Your task to perform on an android device: Search for "rayovac triple a" on amazon.com, select the first entry, add it to the cart, then select checkout. Image 0: 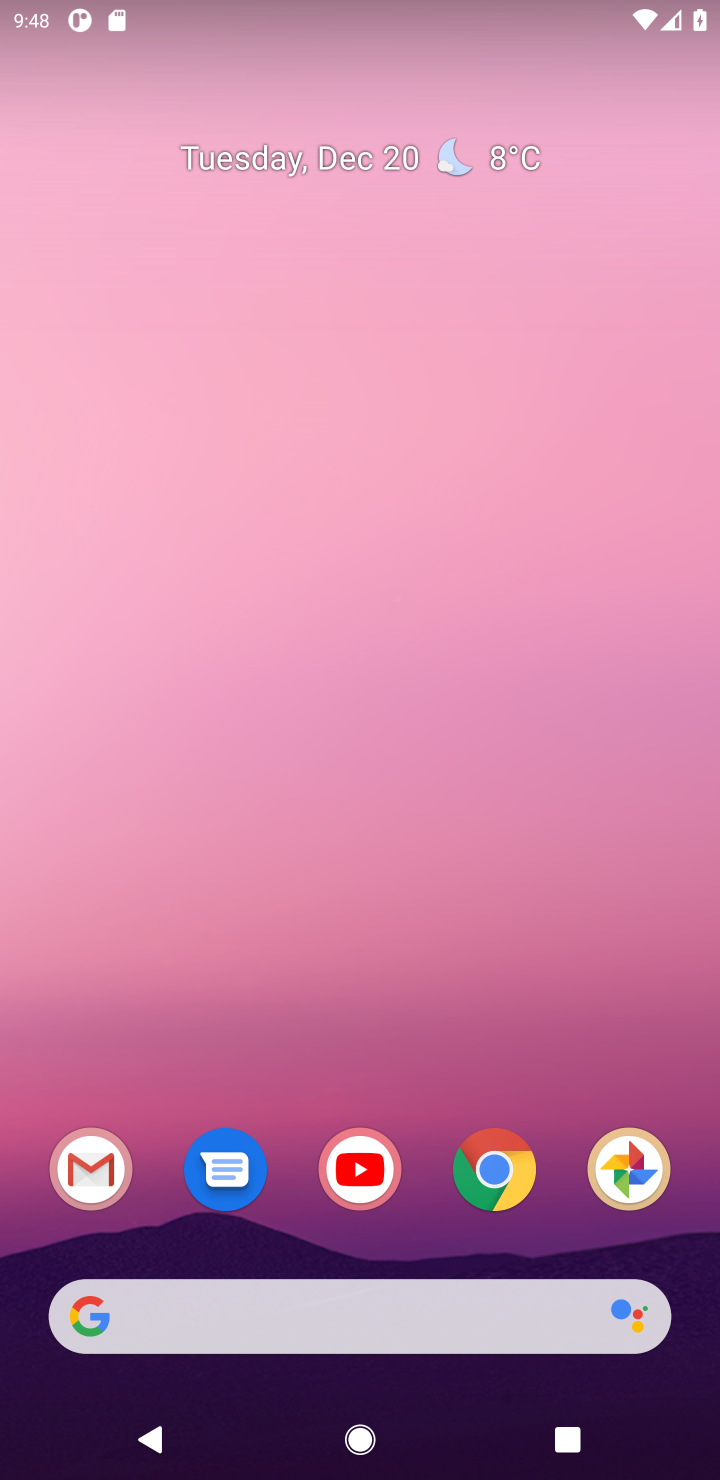
Step 0: click (486, 1208)
Your task to perform on an android device: Search for "rayovac triple a" on amazon.com, select the first entry, add it to the cart, then select checkout. Image 1: 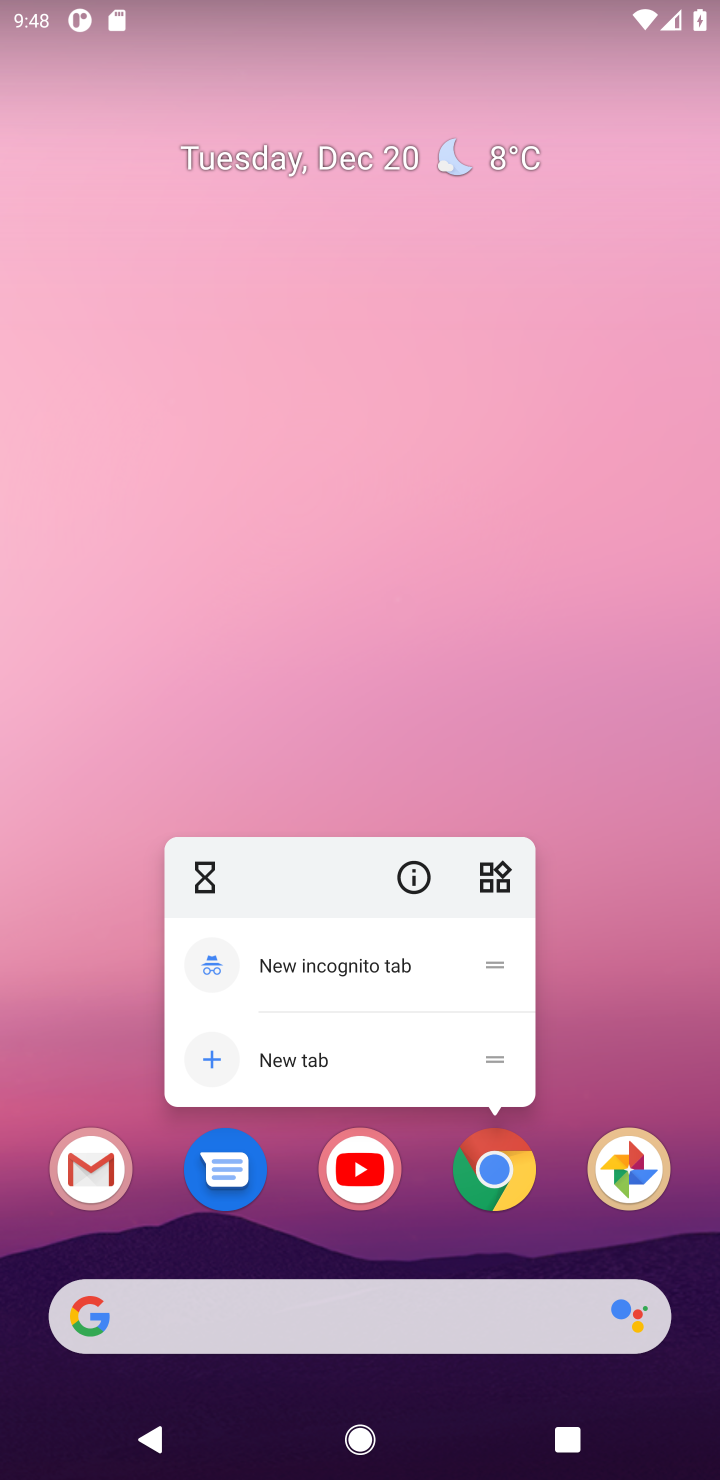
Step 1: click (488, 1157)
Your task to perform on an android device: Search for "rayovac triple a" on amazon.com, select the first entry, add it to the cart, then select checkout. Image 2: 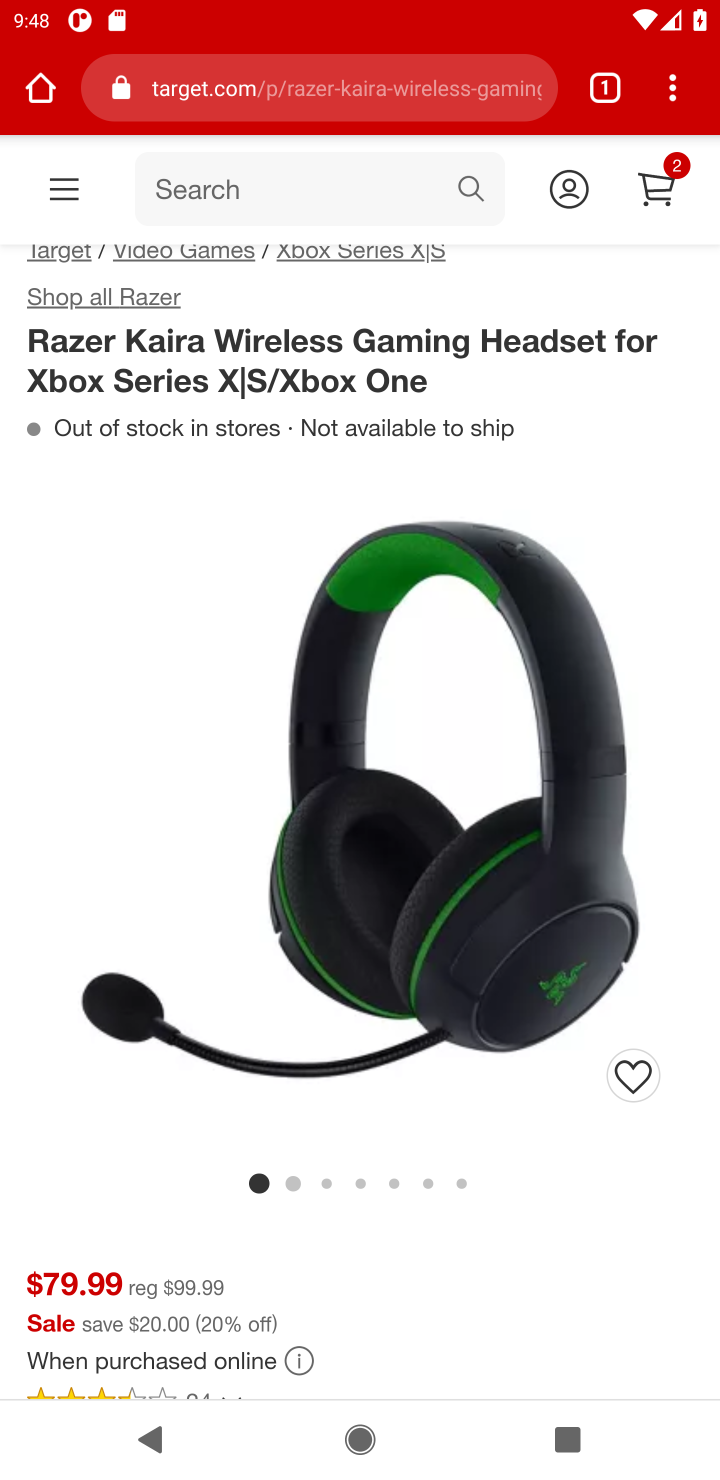
Step 2: click (237, 92)
Your task to perform on an android device: Search for "rayovac triple a" on amazon.com, select the first entry, add it to the cart, then select checkout. Image 3: 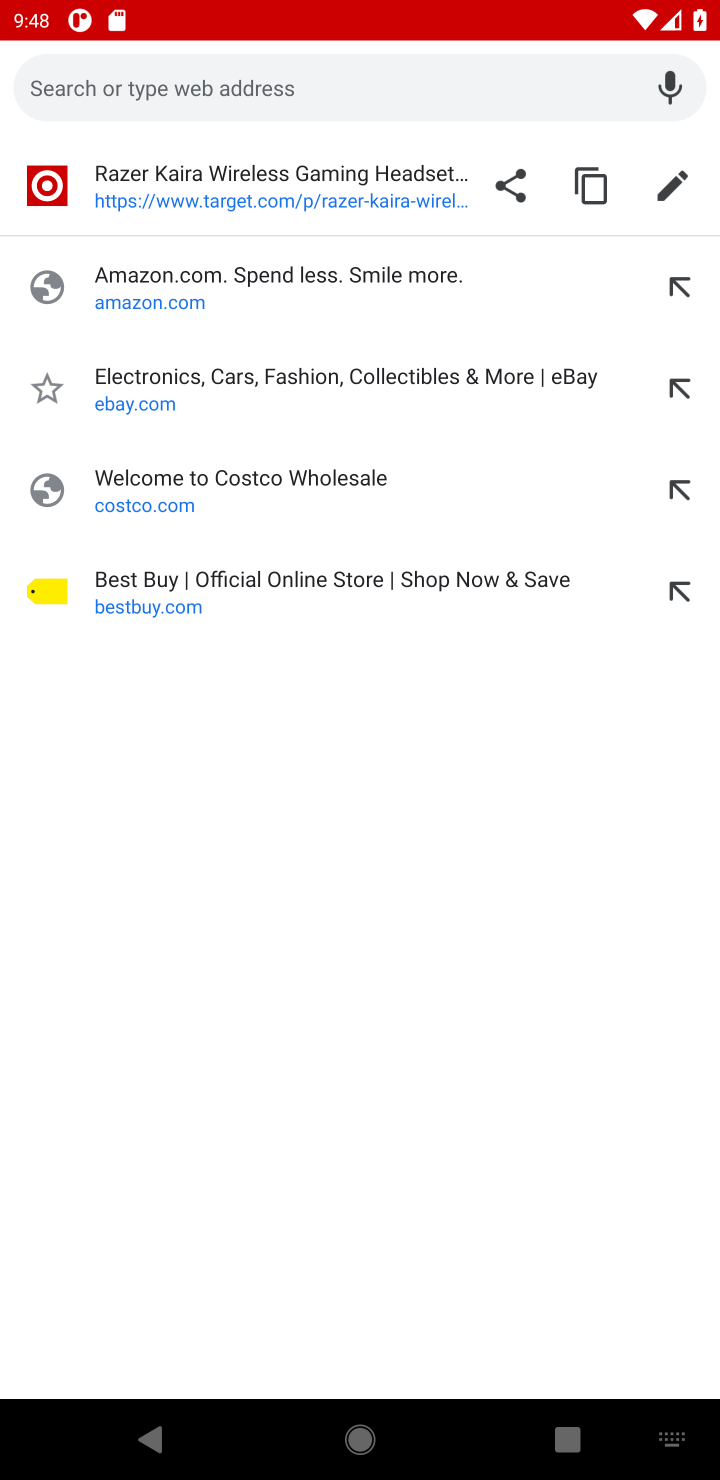
Step 3: type "amazon"
Your task to perform on an android device: Search for "rayovac triple a" on amazon.com, select the first entry, add it to the cart, then select checkout. Image 4: 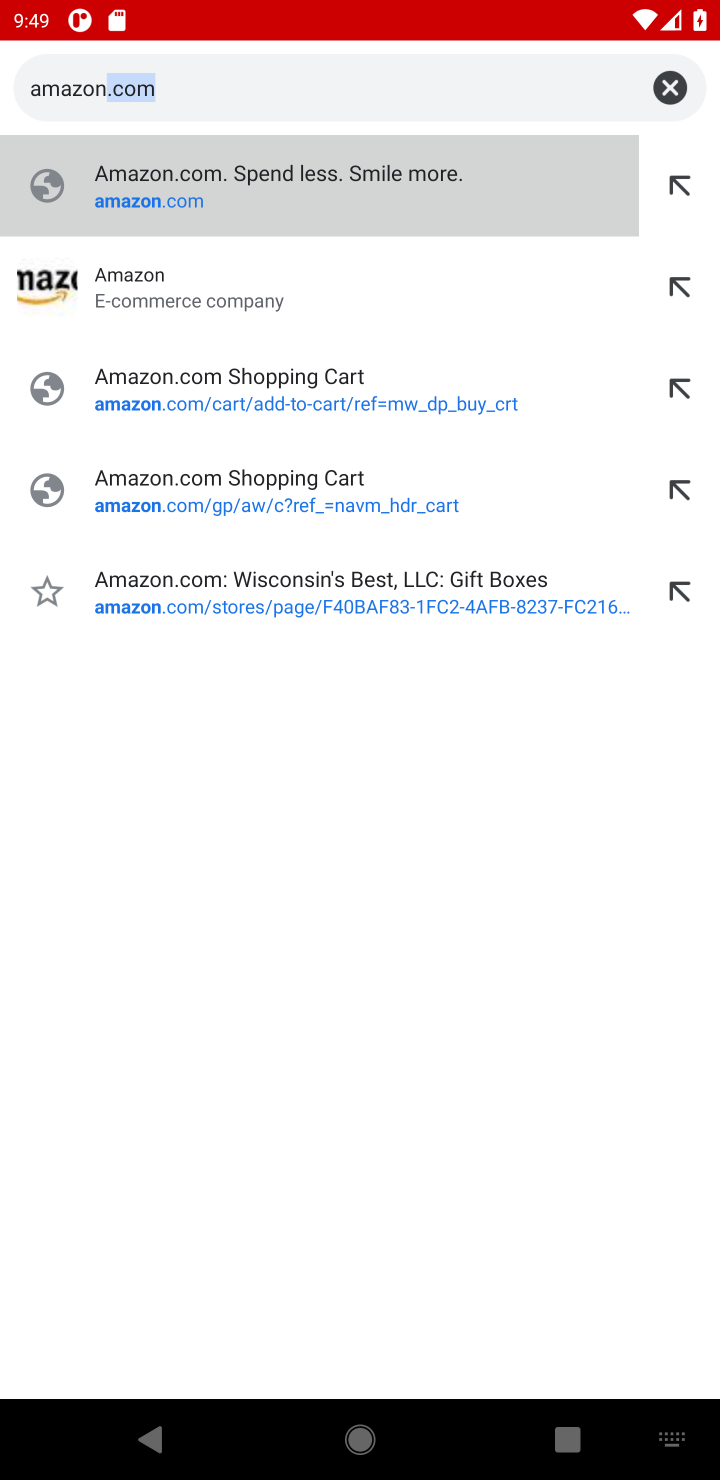
Step 4: click (380, 202)
Your task to perform on an android device: Search for "rayovac triple a" on amazon.com, select the first entry, add it to the cart, then select checkout. Image 5: 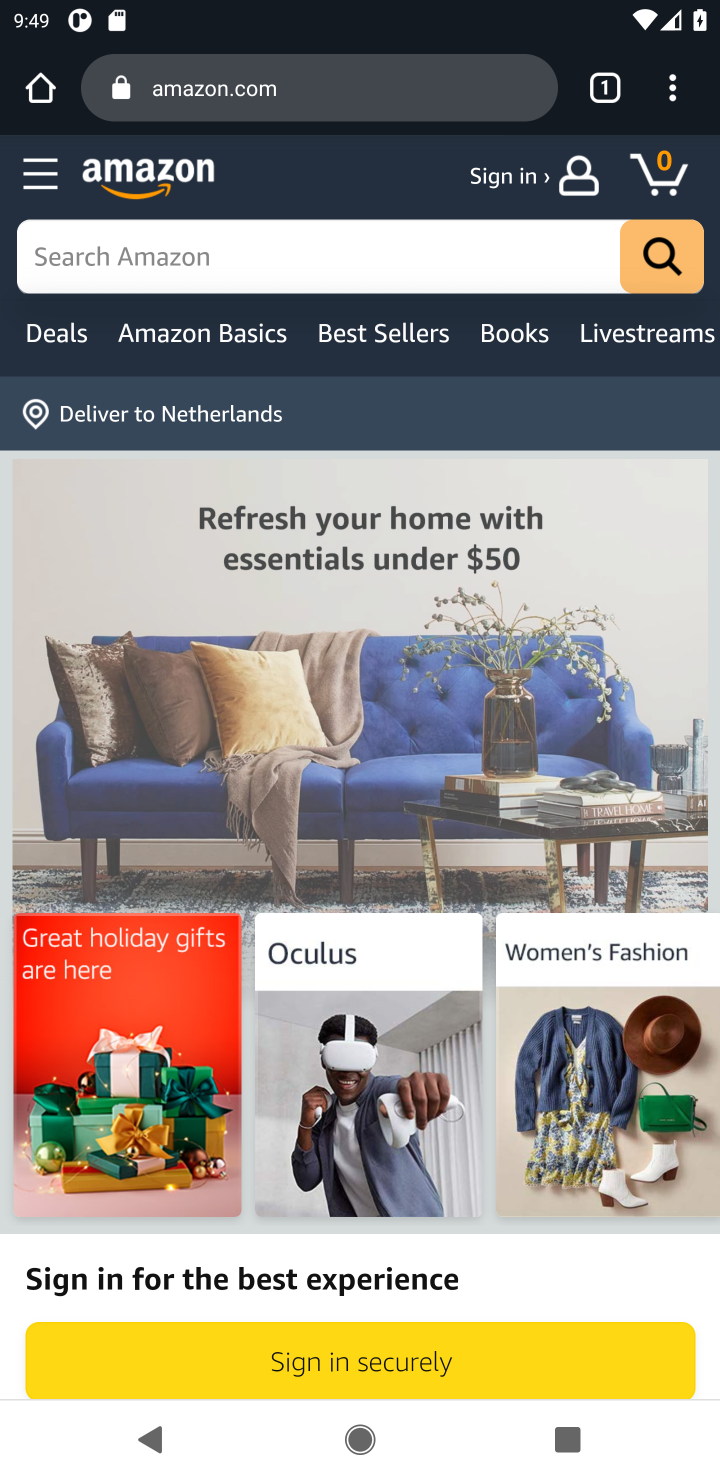
Step 5: type "rayovac triple a"
Your task to perform on an android device: Search for "rayovac triple a" on amazon.com, select the first entry, add it to the cart, then select checkout. Image 6: 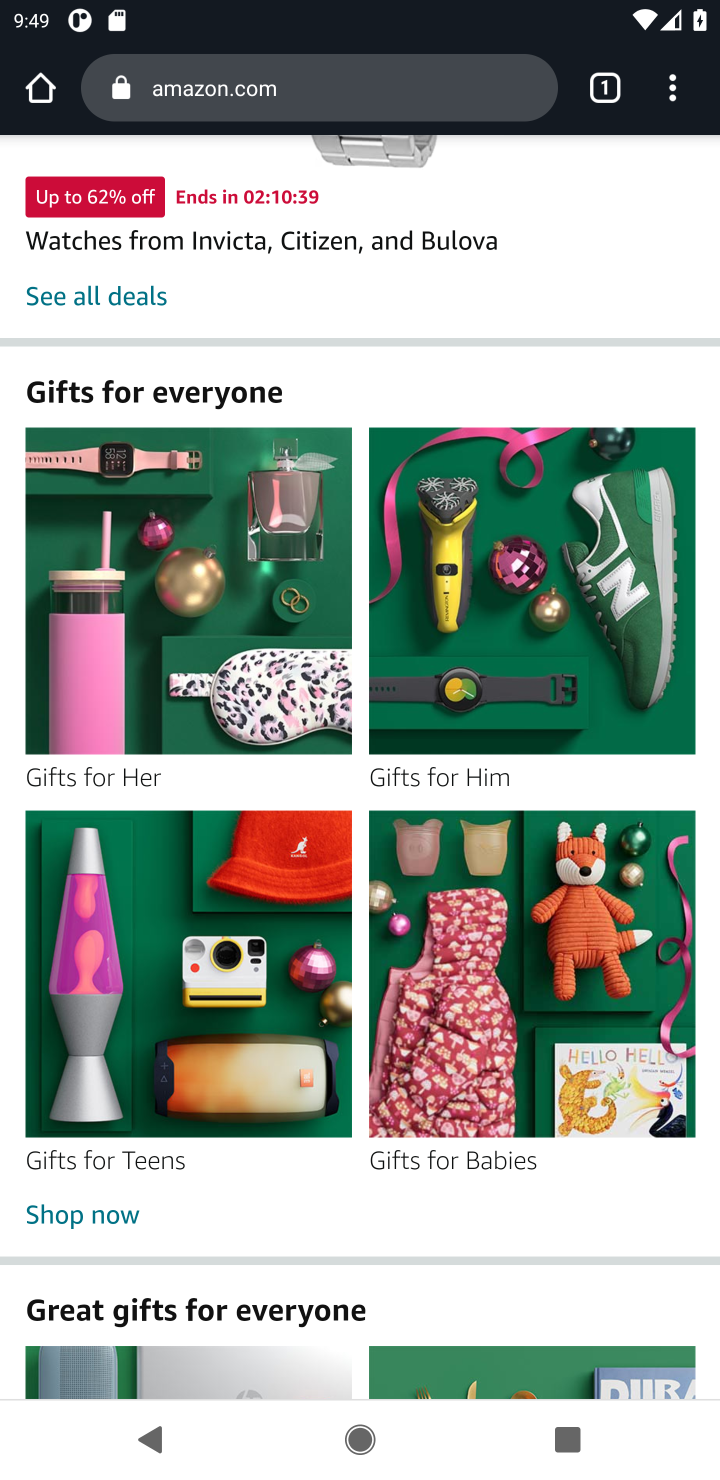
Step 6: task complete